Your task to perform on an android device: What's on my calendar tomorrow? Image 0: 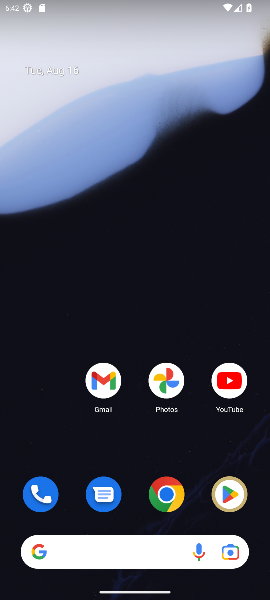
Step 0: task complete